Your task to perform on an android device: search for starred emails in the gmail app Image 0: 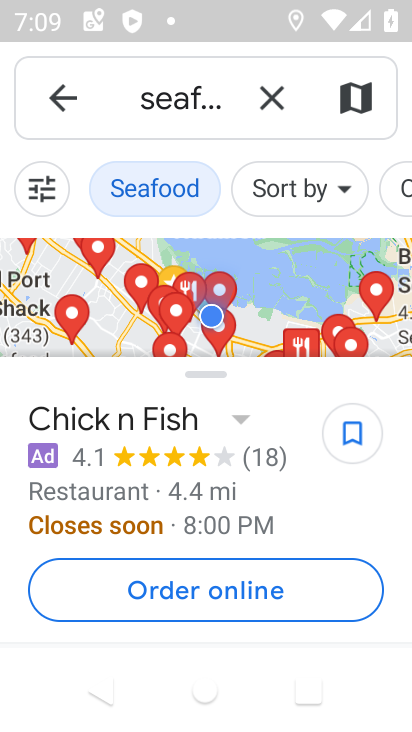
Step 0: press home button
Your task to perform on an android device: search for starred emails in the gmail app Image 1: 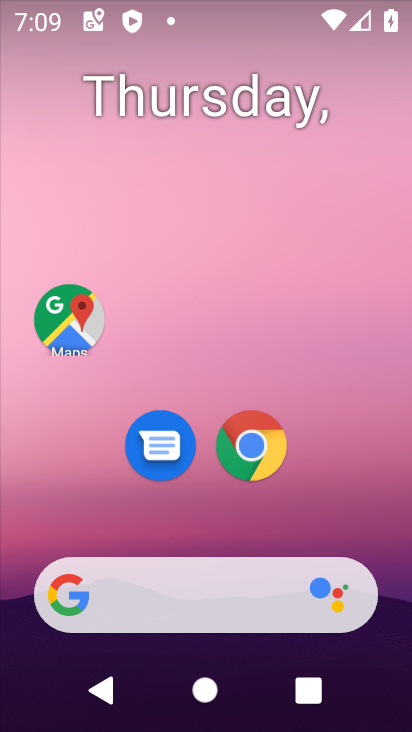
Step 1: drag from (335, 485) to (284, 83)
Your task to perform on an android device: search for starred emails in the gmail app Image 2: 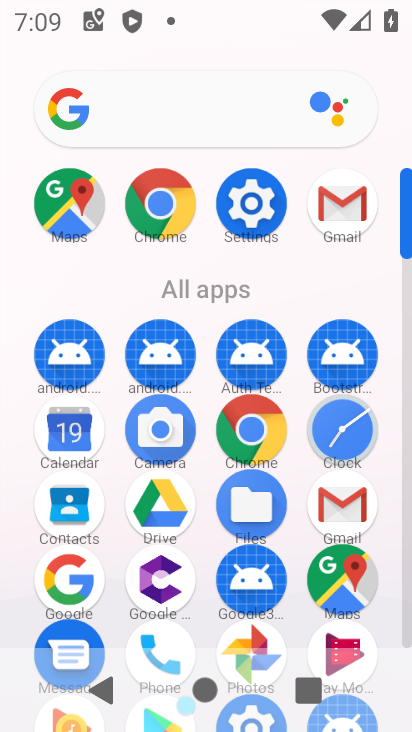
Step 2: click (343, 199)
Your task to perform on an android device: search for starred emails in the gmail app Image 3: 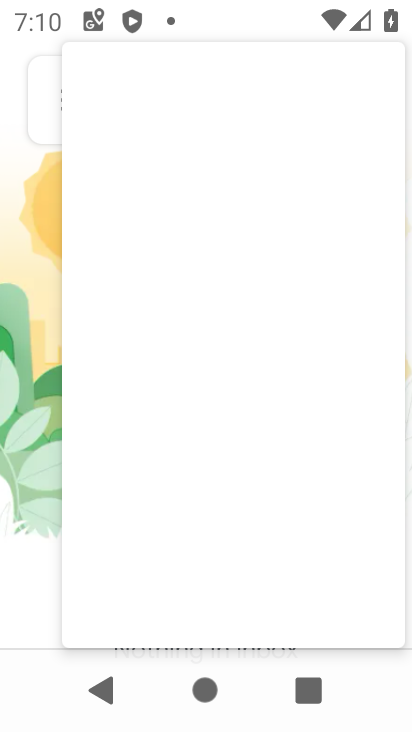
Step 3: press home button
Your task to perform on an android device: search for starred emails in the gmail app Image 4: 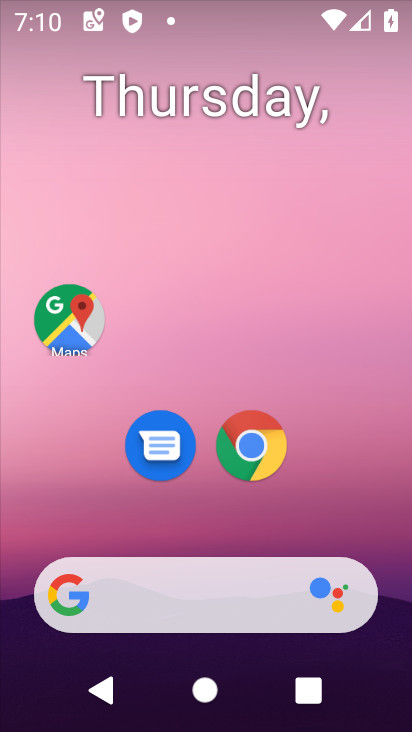
Step 4: drag from (334, 506) to (238, 84)
Your task to perform on an android device: search for starred emails in the gmail app Image 5: 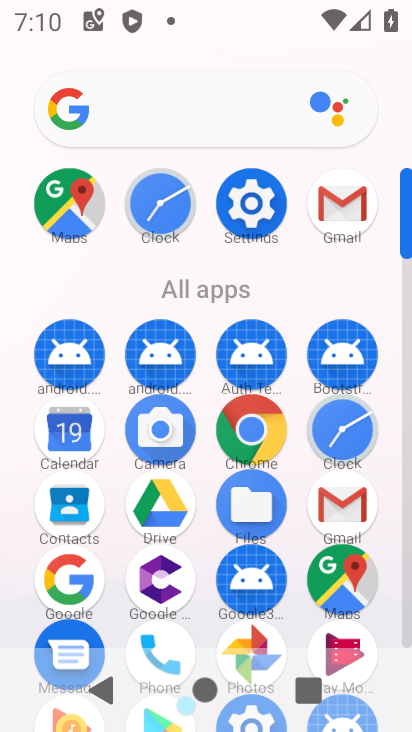
Step 5: click (349, 197)
Your task to perform on an android device: search for starred emails in the gmail app Image 6: 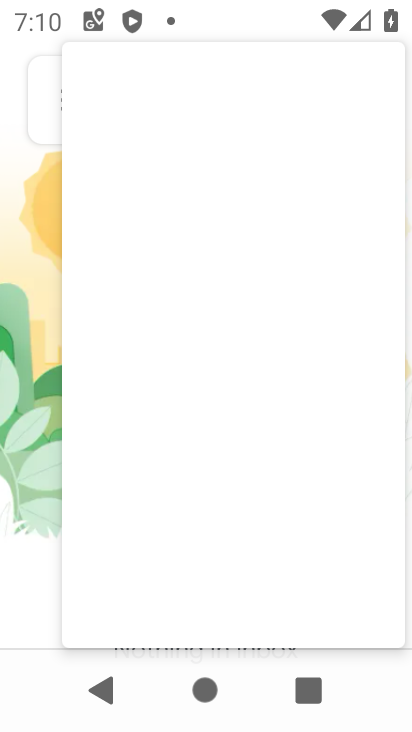
Step 6: task complete